Your task to perform on an android device: move an email to a new category in the gmail app Image 0: 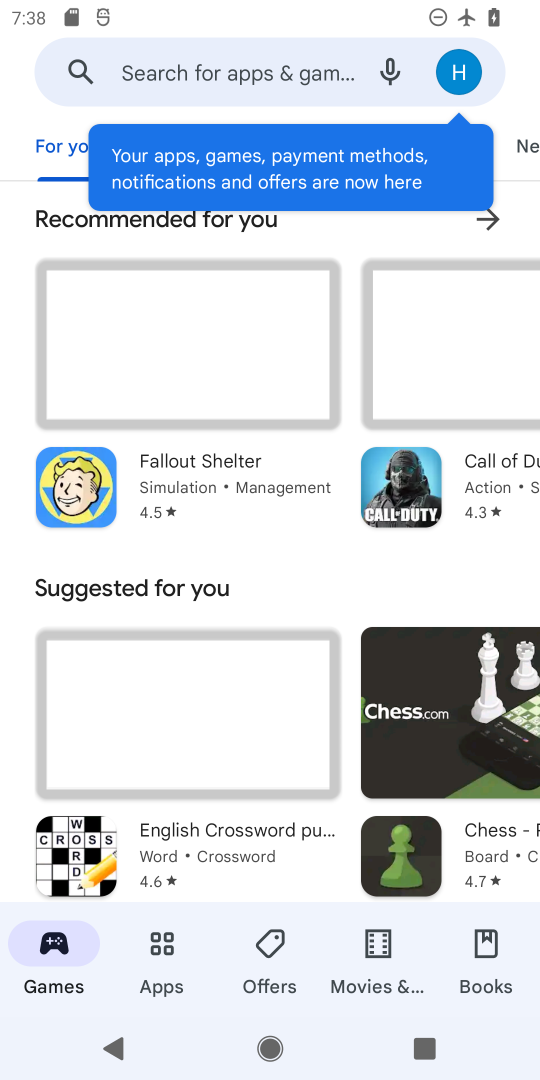
Step 0: press back button
Your task to perform on an android device: move an email to a new category in the gmail app Image 1: 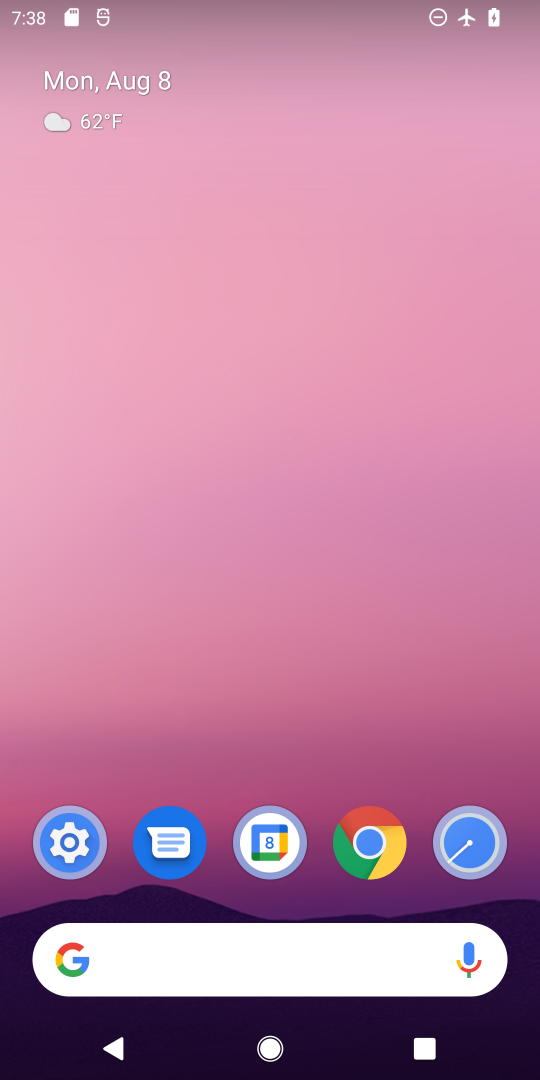
Step 1: drag from (323, 896) to (202, 60)
Your task to perform on an android device: move an email to a new category in the gmail app Image 2: 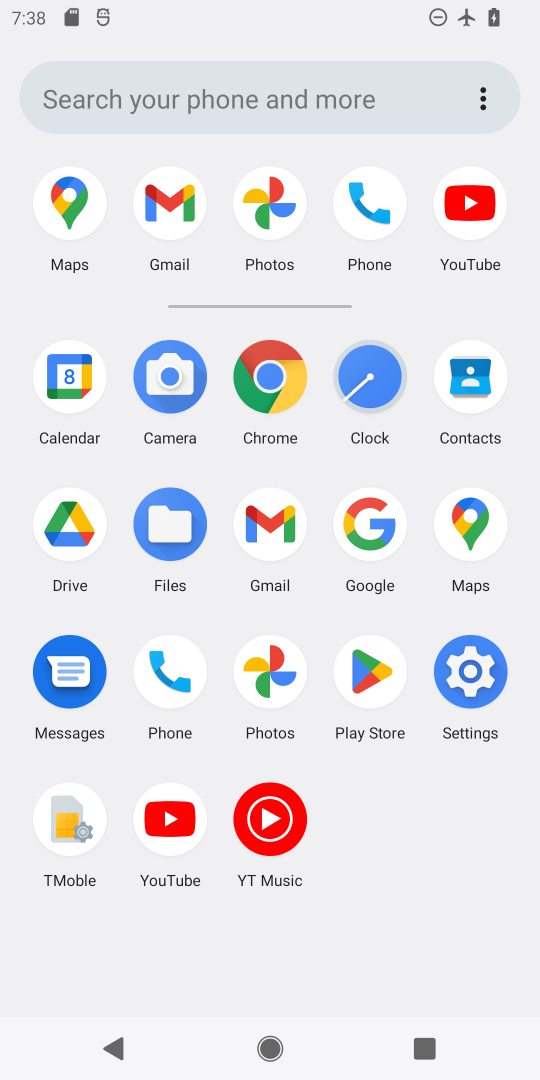
Step 2: click (273, 523)
Your task to perform on an android device: move an email to a new category in the gmail app Image 3: 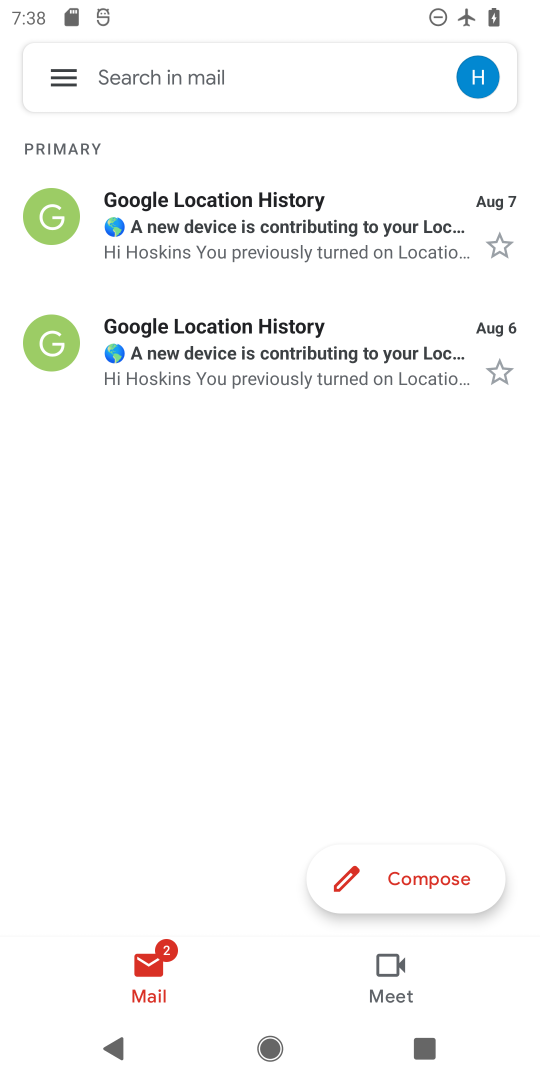
Step 3: click (180, 233)
Your task to perform on an android device: move an email to a new category in the gmail app Image 4: 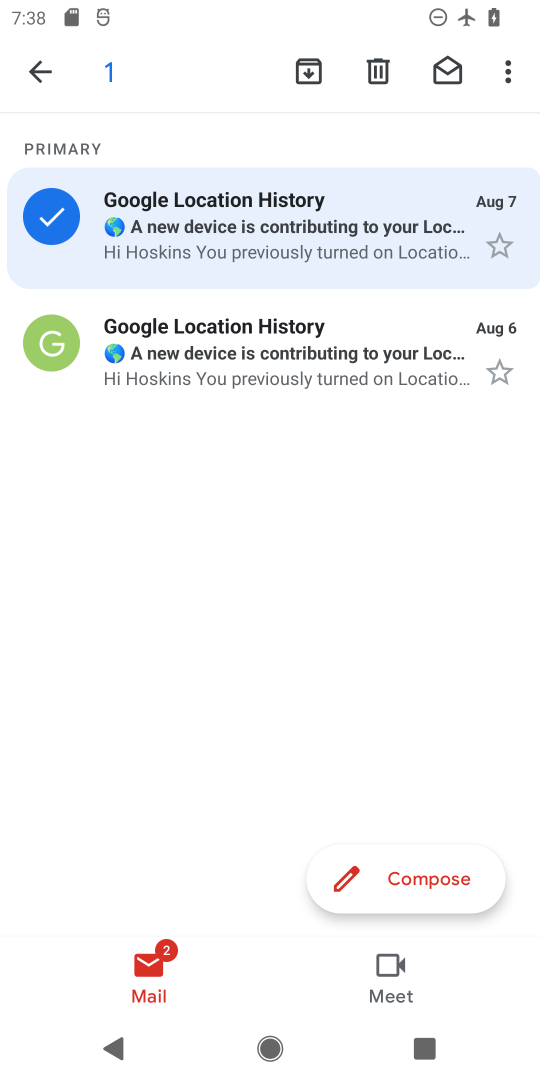
Step 4: click (501, 69)
Your task to perform on an android device: move an email to a new category in the gmail app Image 5: 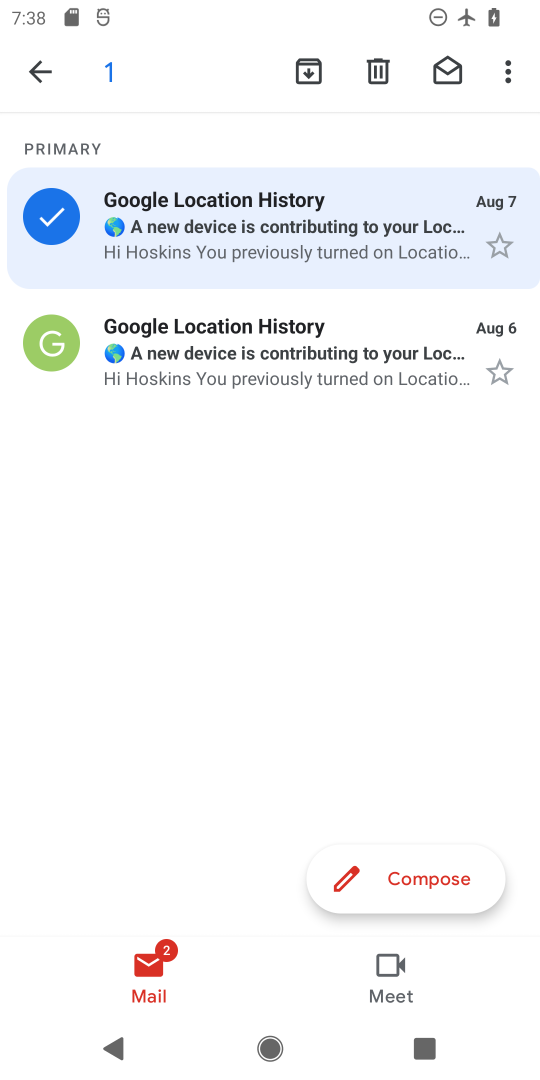
Step 5: click (479, 135)
Your task to perform on an android device: move an email to a new category in the gmail app Image 6: 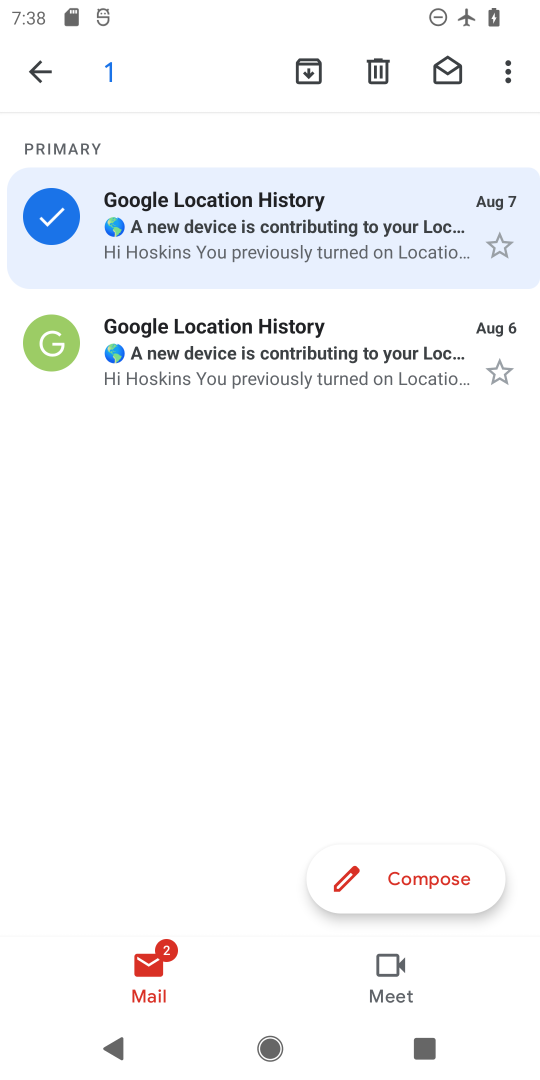
Step 6: click (505, 83)
Your task to perform on an android device: move an email to a new category in the gmail app Image 7: 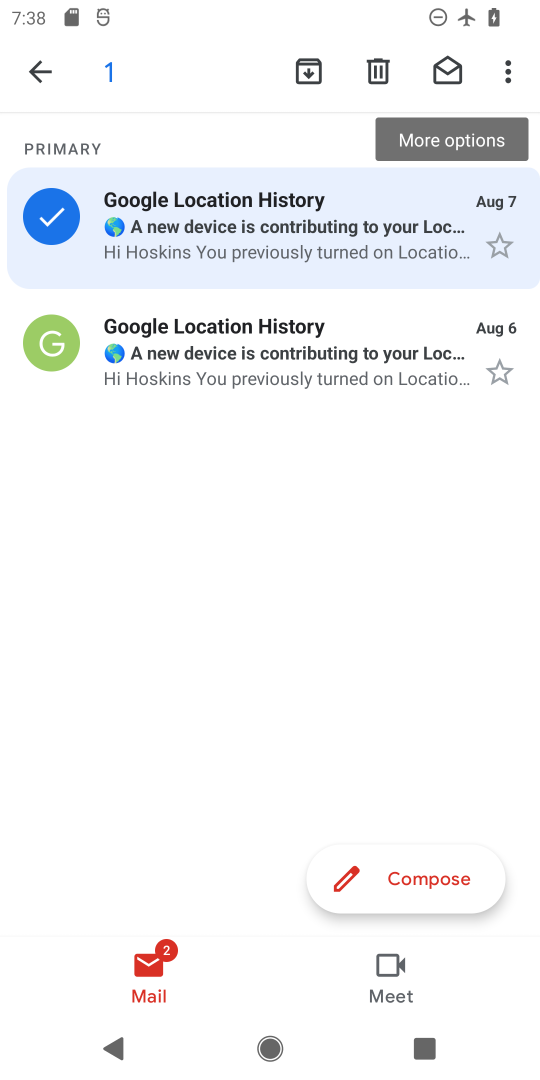
Step 7: click (499, 83)
Your task to perform on an android device: move an email to a new category in the gmail app Image 8: 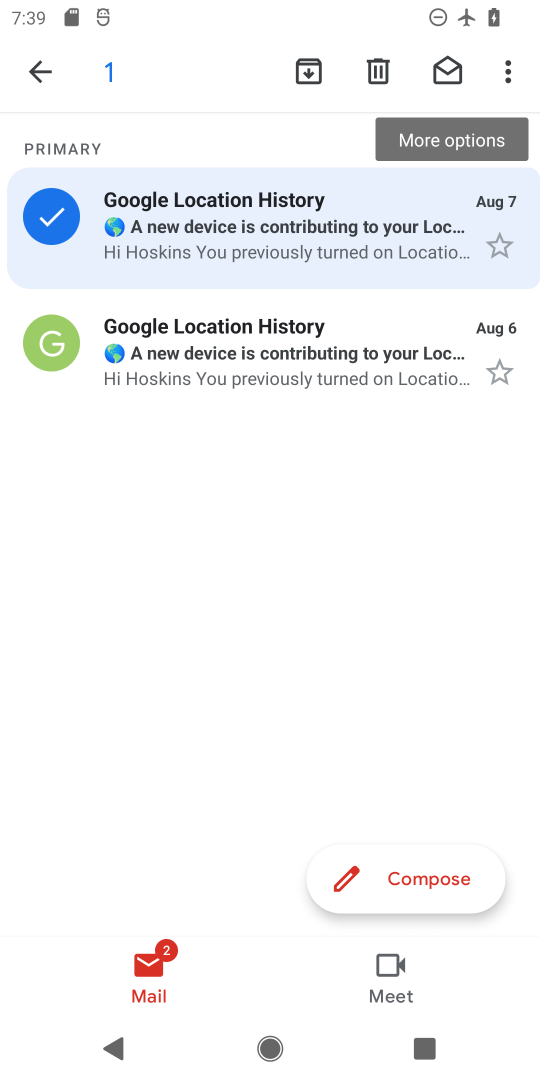
Step 8: click (499, 83)
Your task to perform on an android device: move an email to a new category in the gmail app Image 9: 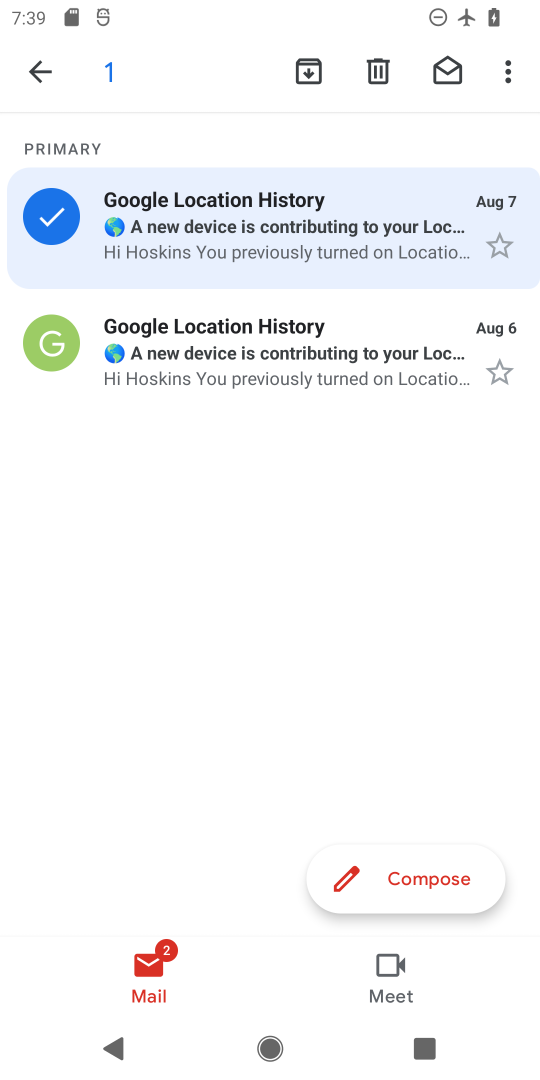
Step 9: click (493, 73)
Your task to perform on an android device: move an email to a new category in the gmail app Image 10: 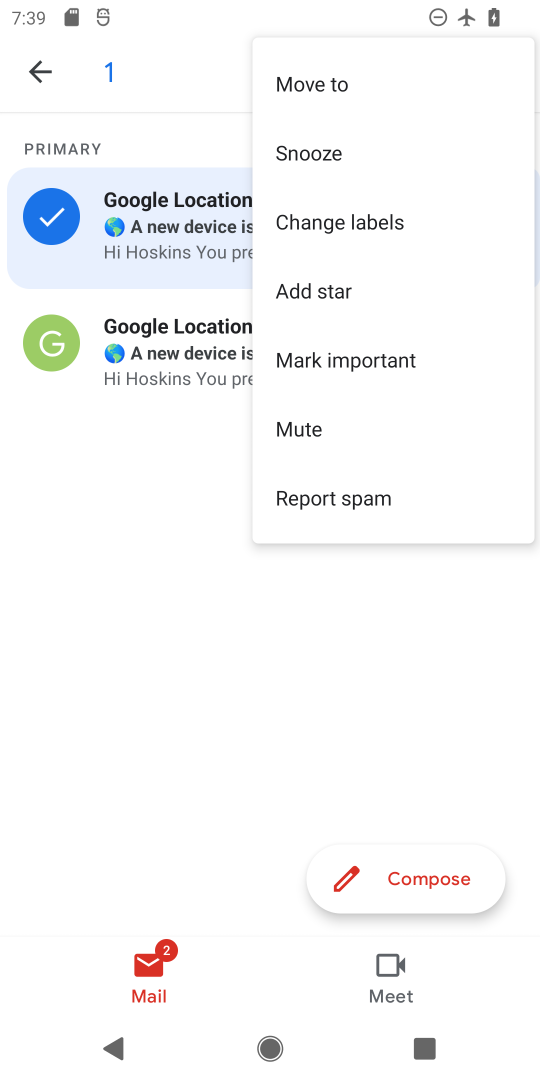
Step 10: click (320, 99)
Your task to perform on an android device: move an email to a new category in the gmail app Image 11: 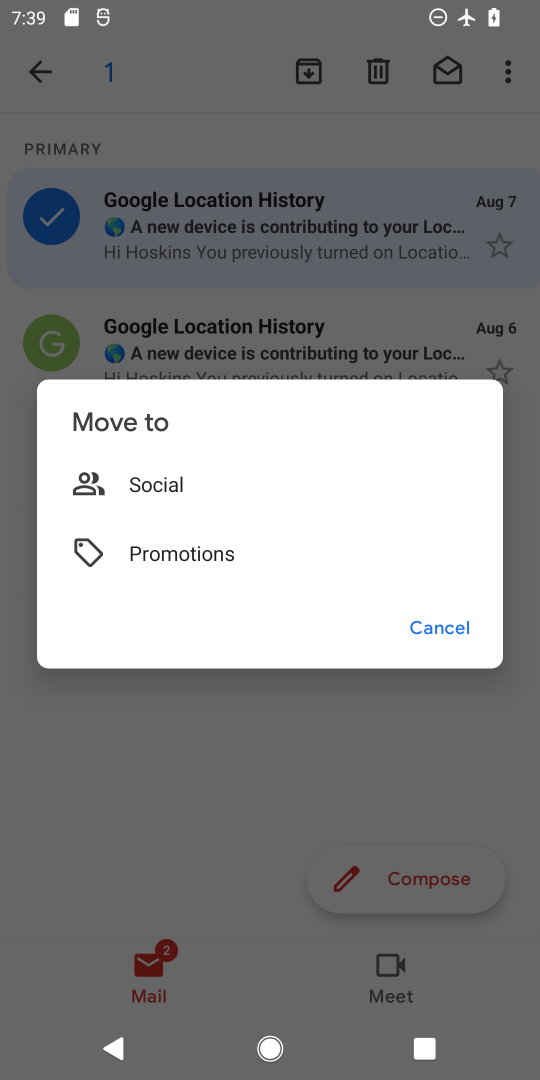
Step 11: click (143, 488)
Your task to perform on an android device: move an email to a new category in the gmail app Image 12: 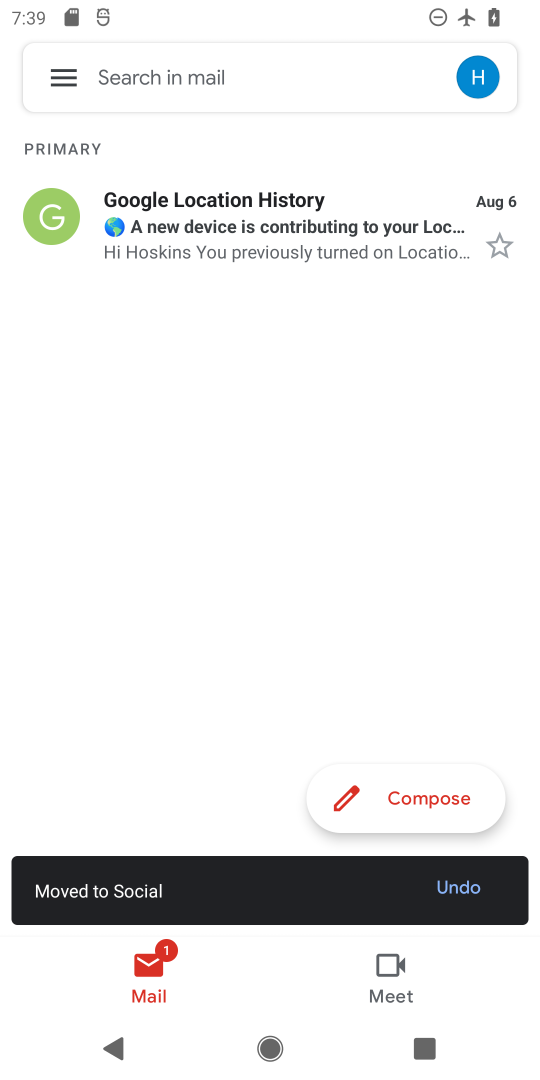
Step 12: task complete